Your task to perform on an android device: toggle data saver in the chrome app Image 0: 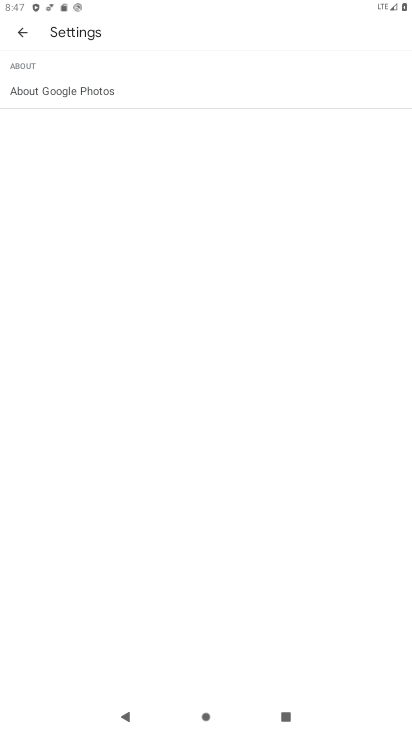
Step 0: press home button
Your task to perform on an android device: toggle data saver in the chrome app Image 1: 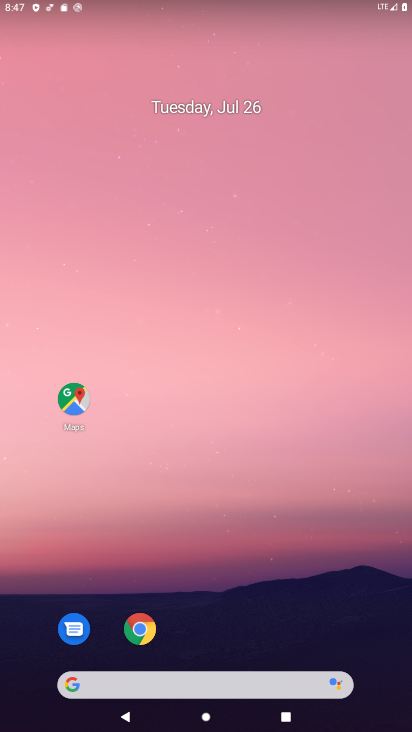
Step 1: click (150, 637)
Your task to perform on an android device: toggle data saver in the chrome app Image 2: 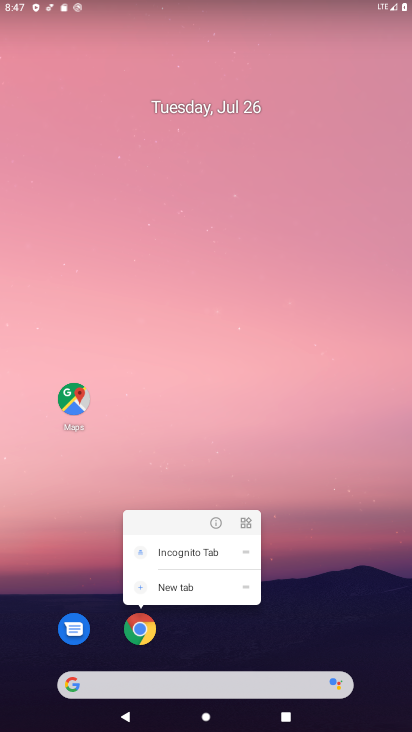
Step 2: click (150, 631)
Your task to perform on an android device: toggle data saver in the chrome app Image 3: 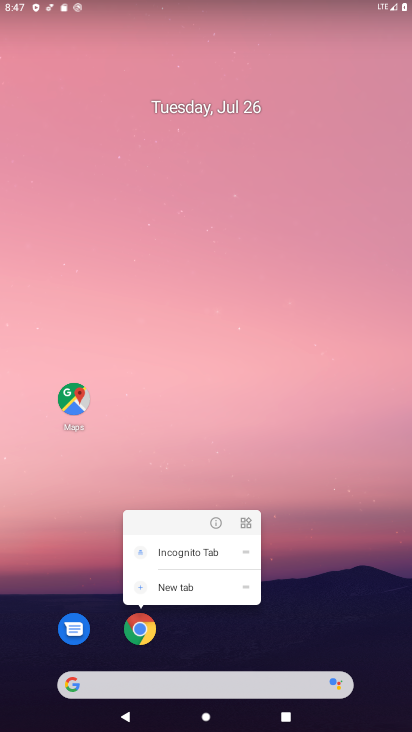
Step 3: click (150, 630)
Your task to perform on an android device: toggle data saver in the chrome app Image 4: 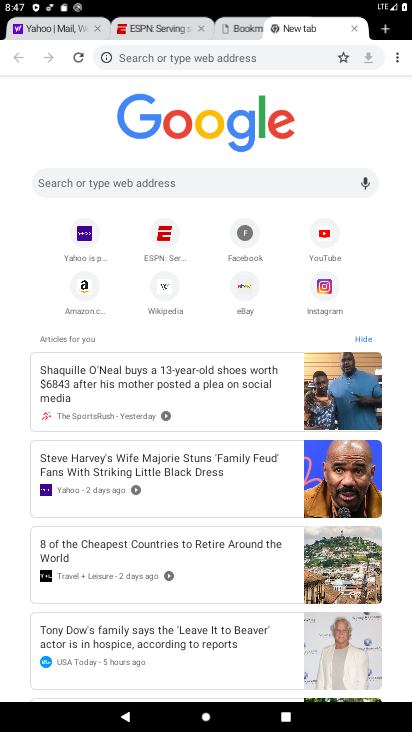
Step 4: drag from (390, 54) to (272, 259)
Your task to perform on an android device: toggle data saver in the chrome app Image 5: 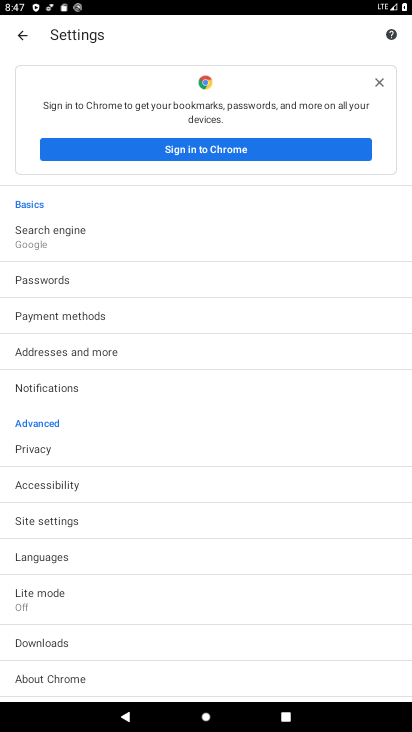
Step 5: click (76, 609)
Your task to perform on an android device: toggle data saver in the chrome app Image 6: 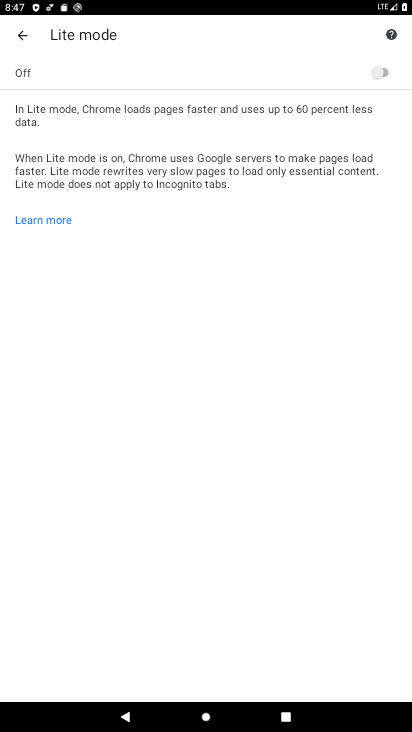
Step 6: click (384, 74)
Your task to perform on an android device: toggle data saver in the chrome app Image 7: 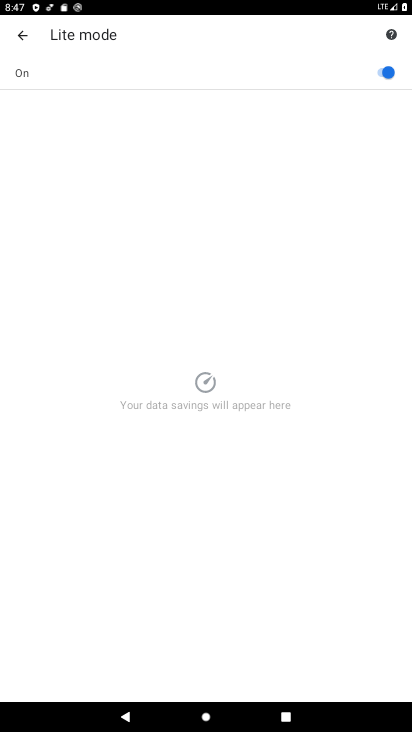
Step 7: task complete